Your task to perform on an android device: Set the phone to "Do not disturb". Image 0: 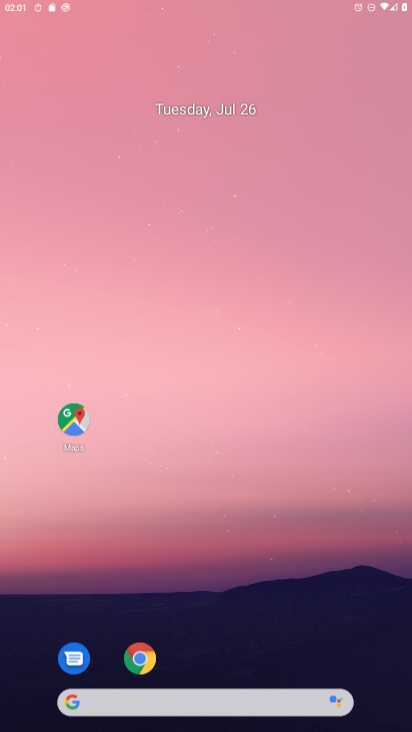
Step 0: press home button
Your task to perform on an android device: Set the phone to "Do not disturb". Image 1: 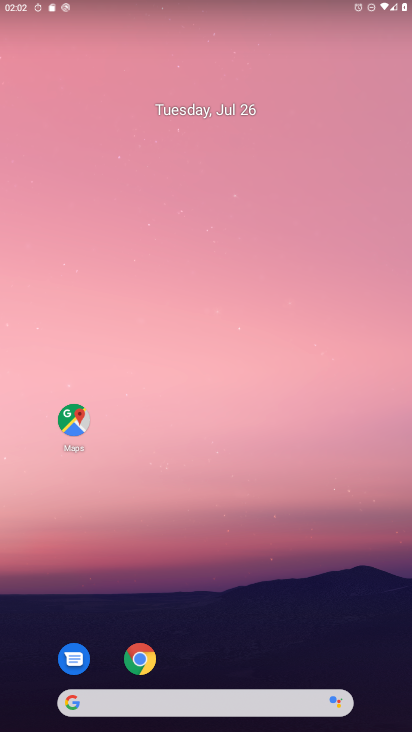
Step 1: task complete